Your task to perform on an android device: turn notification dots off Image 0: 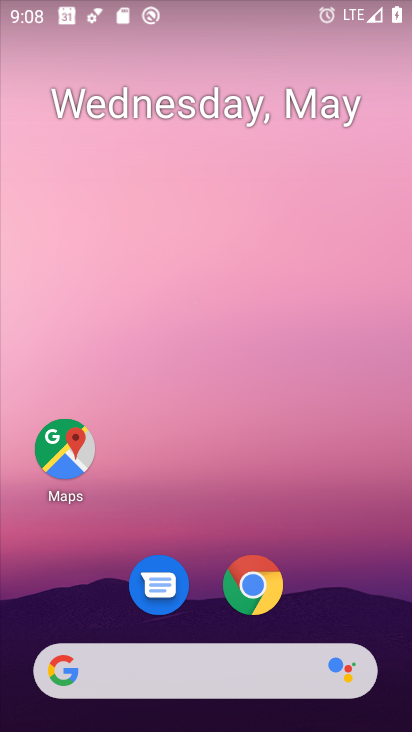
Step 0: drag from (241, 506) to (181, 41)
Your task to perform on an android device: turn notification dots off Image 1: 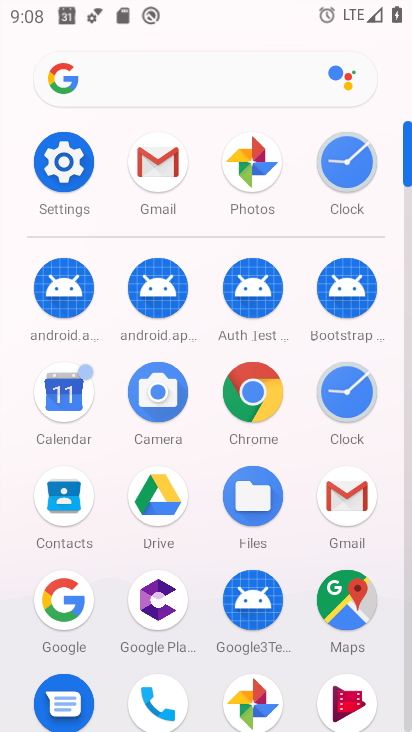
Step 1: click (74, 159)
Your task to perform on an android device: turn notification dots off Image 2: 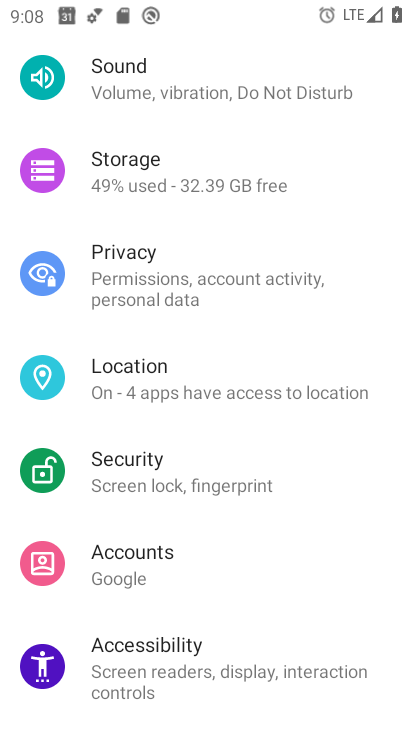
Step 2: drag from (204, 137) to (252, 647)
Your task to perform on an android device: turn notification dots off Image 3: 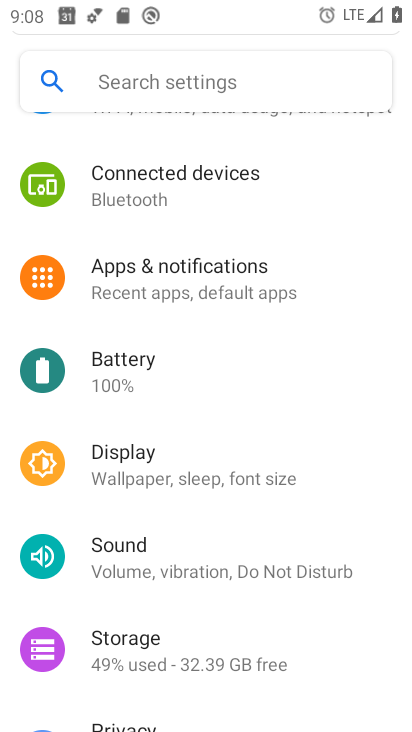
Step 3: click (229, 284)
Your task to perform on an android device: turn notification dots off Image 4: 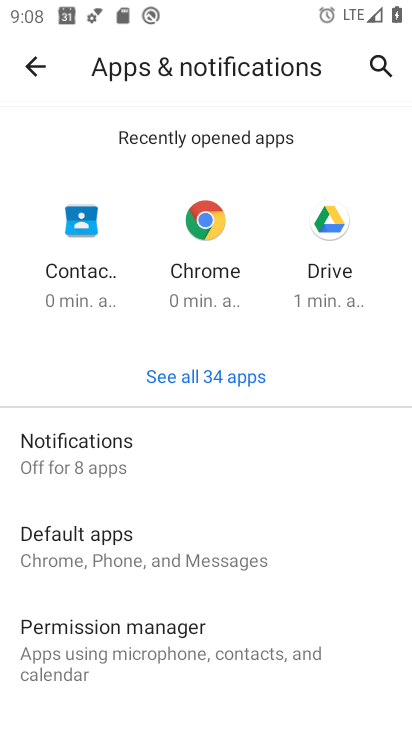
Step 4: drag from (220, 513) to (212, 132)
Your task to perform on an android device: turn notification dots off Image 5: 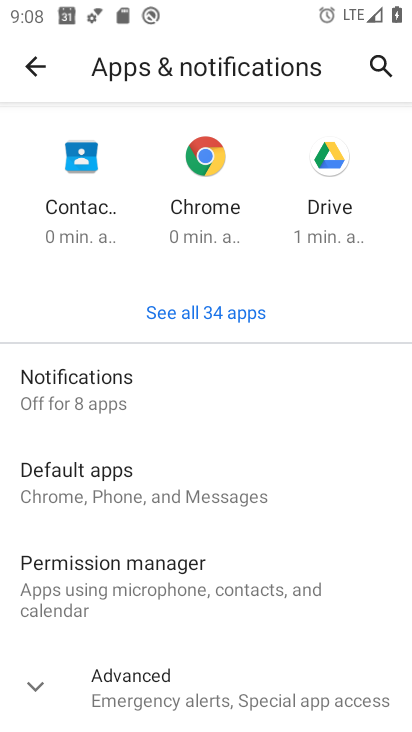
Step 5: click (30, 690)
Your task to perform on an android device: turn notification dots off Image 6: 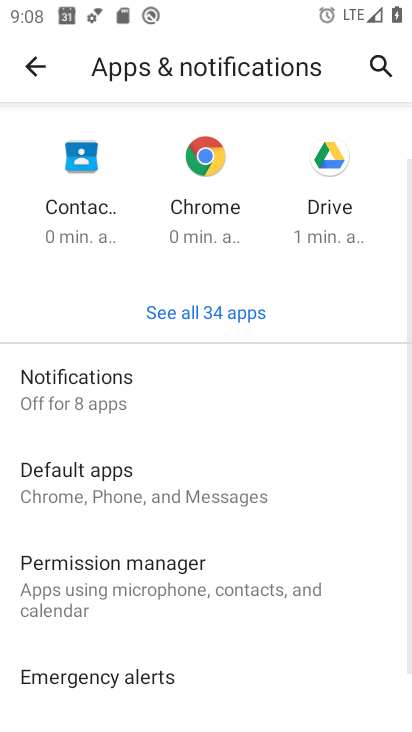
Step 6: drag from (276, 680) to (240, 276)
Your task to perform on an android device: turn notification dots off Image 7: 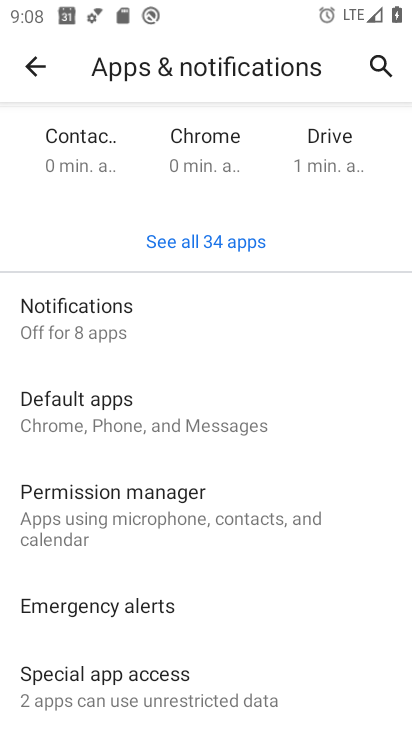
Step 7: drag from (243, 601) to (234, 362)
Your task to perform on an android device: turn notification dots off Image 8: 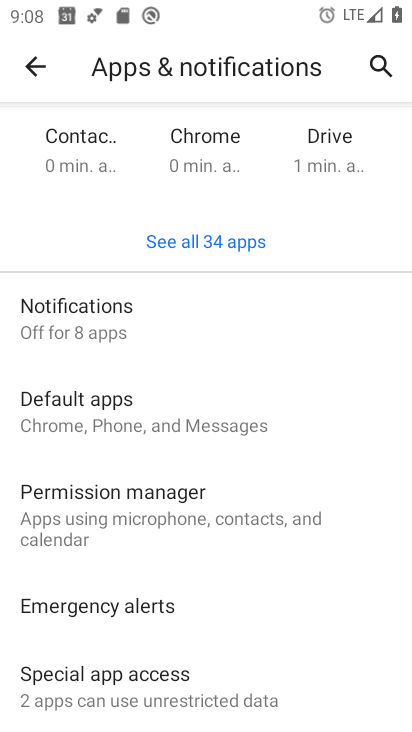
Step 8: click (175, 335)
Your task to perform on an android device: turn notification dots off Image 9: 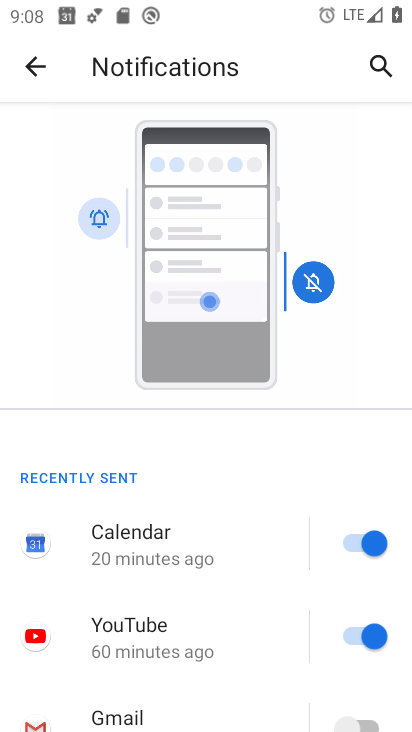
Step 9: drag from (198, 590) to (187, 81)
Your task to perform on an android device: turn notification dots off Image 10: 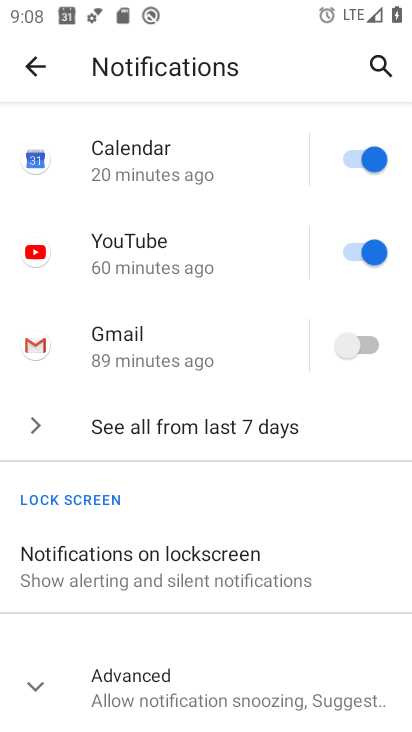
Step 10: click (37, 675)
Your task to perform on an android device: turn notification dots off Image 11: 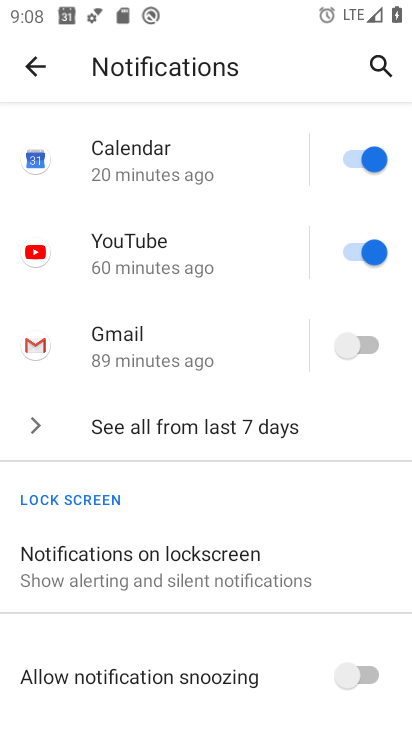
Step 11: drag from (282, 564) to (234, 155)
Your task to perform on an android device: turn notification dots off Image 12: 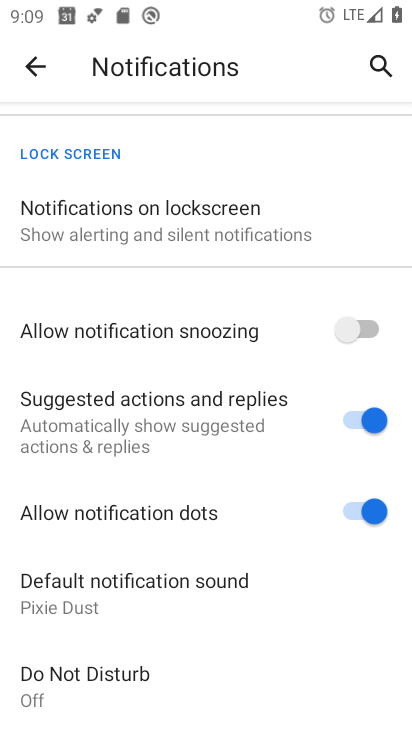
Step 12: click (358, 511)
Your task to perform on an android device: turn notification dots off Image 13: 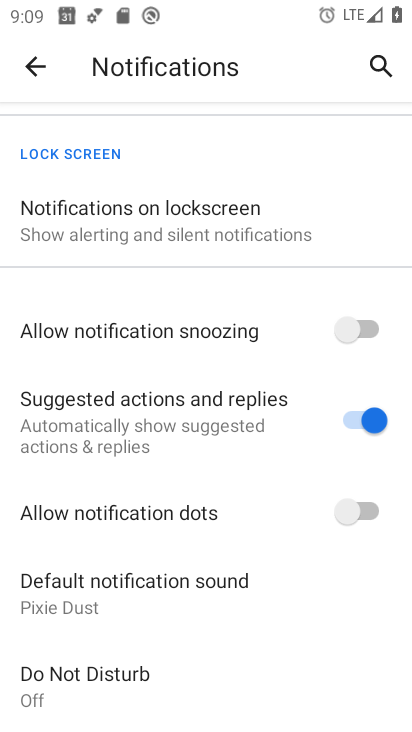
Step 13: task complete